Your task to perform on an android device: toggle pop-ups in chrome Image 0: 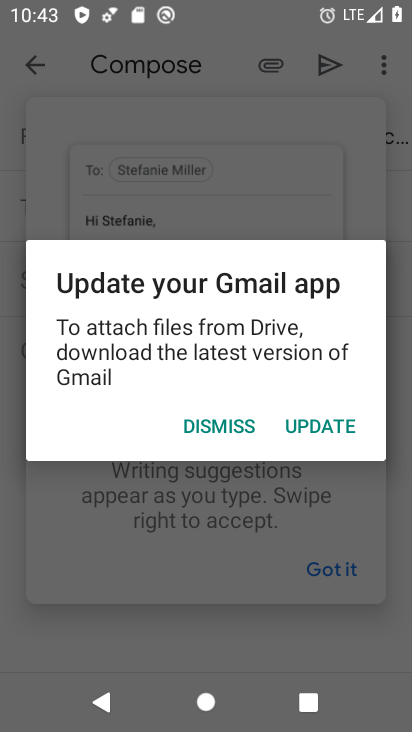
Step 0: press home button
Your task to perform on an android device: toggle pop-ups in chrome Image 1: 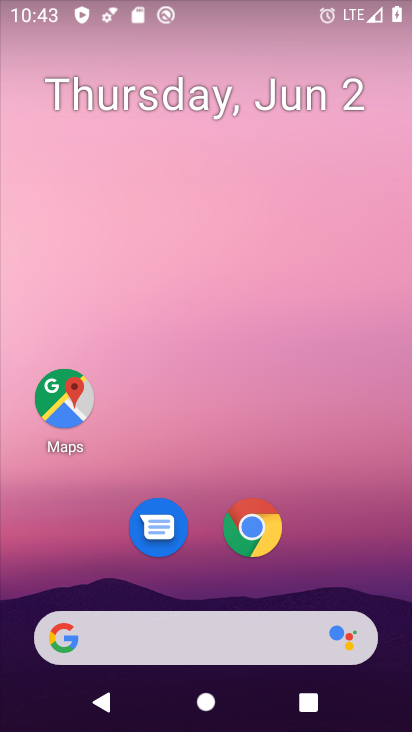
Step 1: click (261, 536)
Your task to perform on an android device: toggle pop-ups in chrome Image 2: 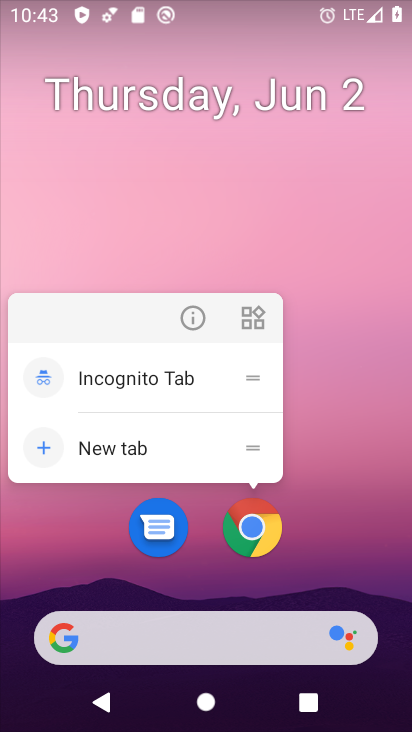
Step 2: click (258, 534)
Your task to perform on an android device: toggle pop-ups in chrome Image 3: 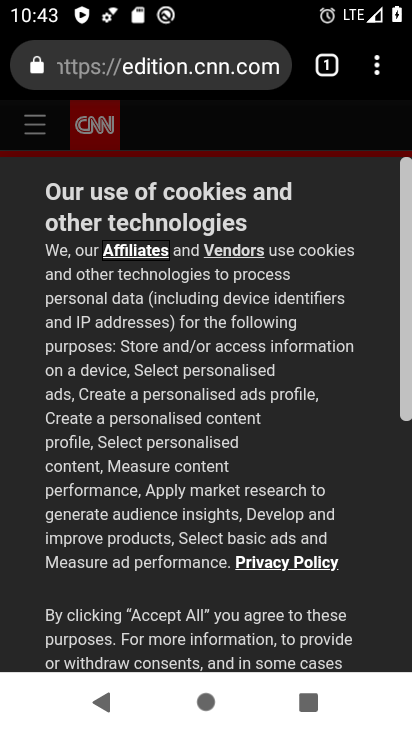
Step 3: drag from (379, 80) to (222, 581)
Your task to perform on an android device: toggle pop-ups in chrome Image 4: 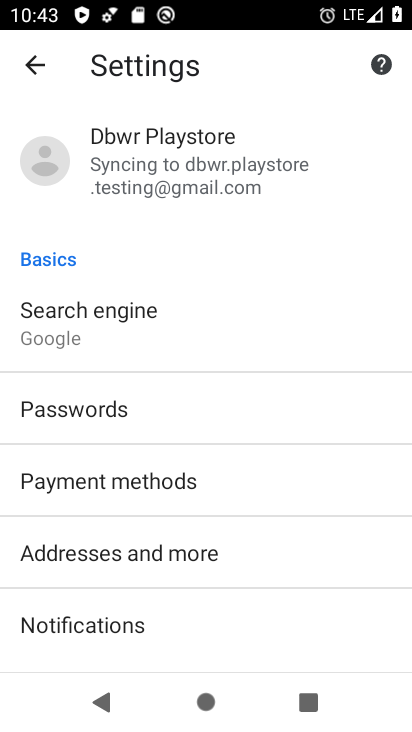
Step 4: drag from (196, 587) to (129, 75)
Your task to perform on an android device: toggle pop-ups in chrome Image 5: 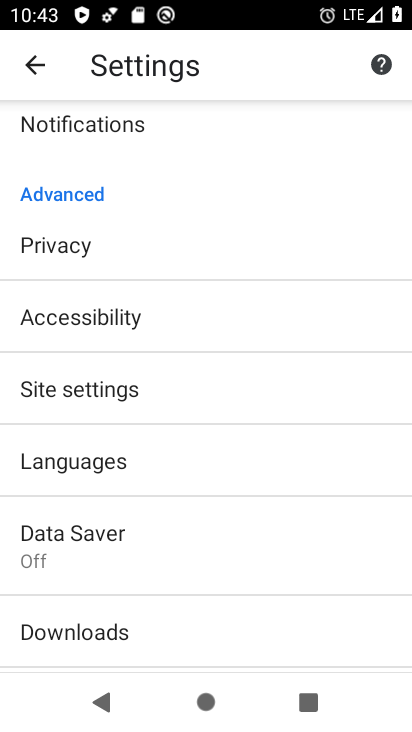
Step 5: click (138, 391)
Your task to perform on an android device: toggle pop-ups in chrome Image 6: 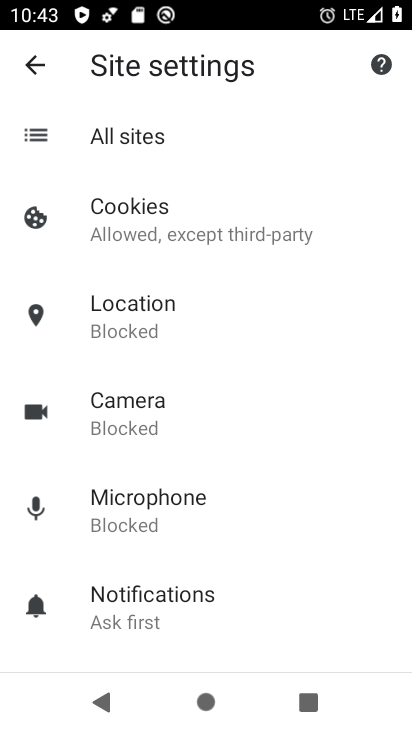
Step 6: drag from (172, 534) to (137, 77)
Your task to perform on an android device: toggle pop-ups in chrome Image 7: 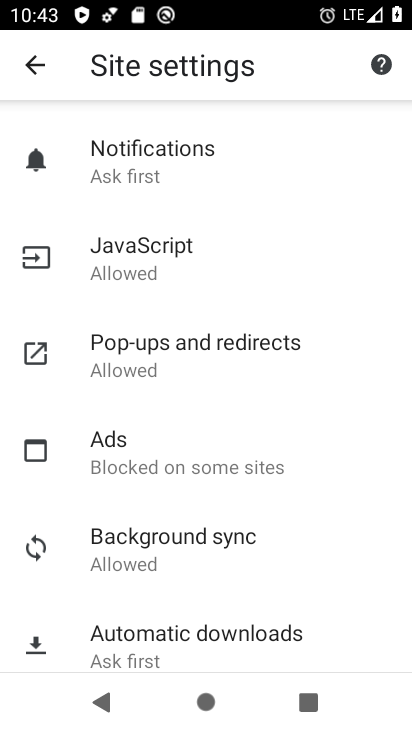
Step 7: click (166, 360)
Your task to perform on an android device: toggle pop-ups in chrome Image 8: 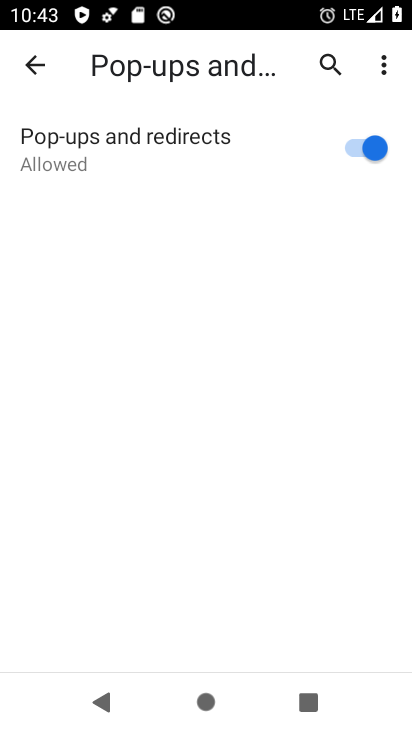
Step 8: click (375, 141)
Your task to perform on an android device: toggle pop-ups in chrome Image 9: 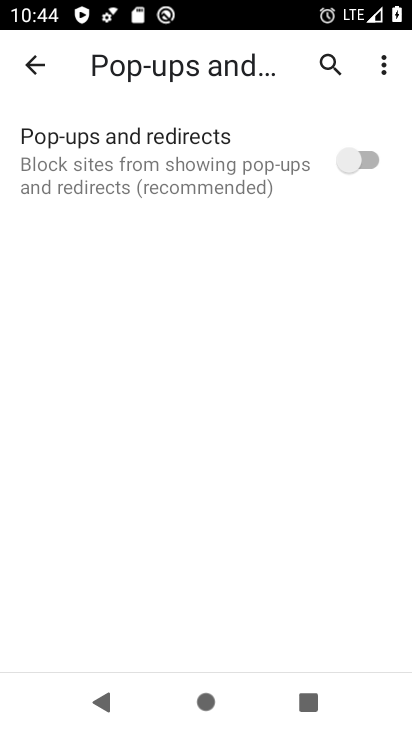
Step 9: task complete